Your task to perform on an android device: Go to wifi settings Image 0: 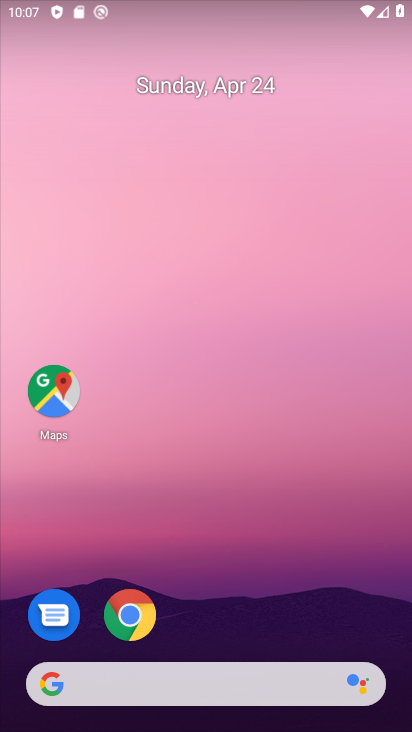
Step 0: drag from (224, 596) to (202, 33)
Your task to perform on an android device: Go to wifi settings Image 1: 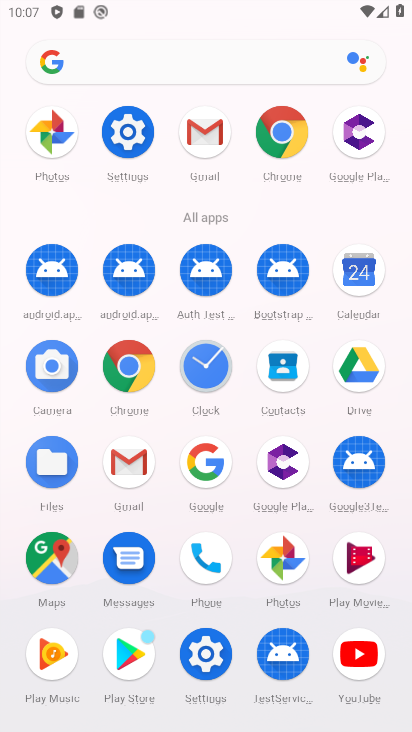
Step 1: click (204, 644)
Your task to perform on an android device: Go to wifi settings Image 2: 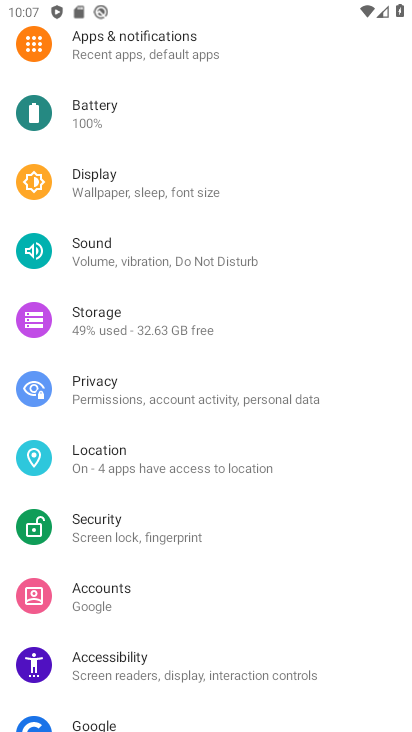
Step 2: drag from (140, 120) to (154, 728)
Your task to perform on an android device: Go to wifi settings Image 3: 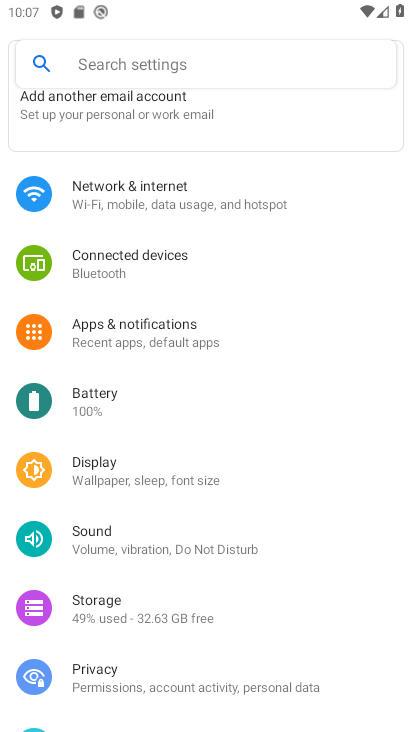
Step 3: click (119, 201)
Your task to perform on an android device: Go to wifi settings Image 4: 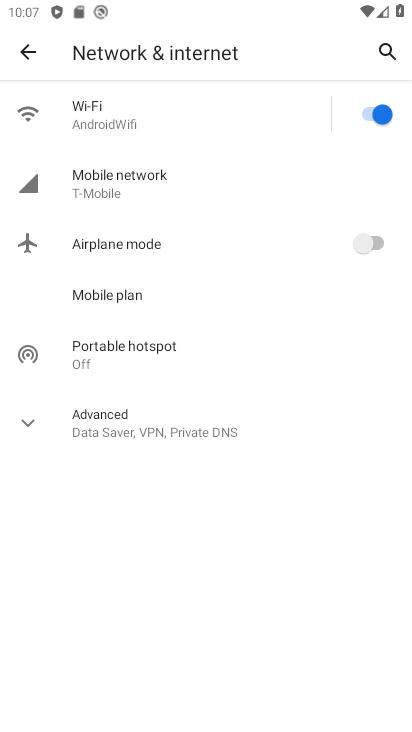
Step 4: click (147, 112)
Your task to perform on an android device: Go to wifi settings Image 5: 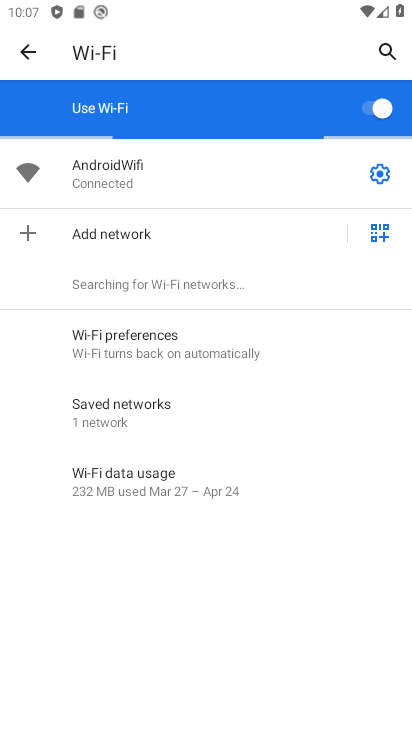
Step 5: task complete